Your task to perform on an android device: See recent photos Image 0: 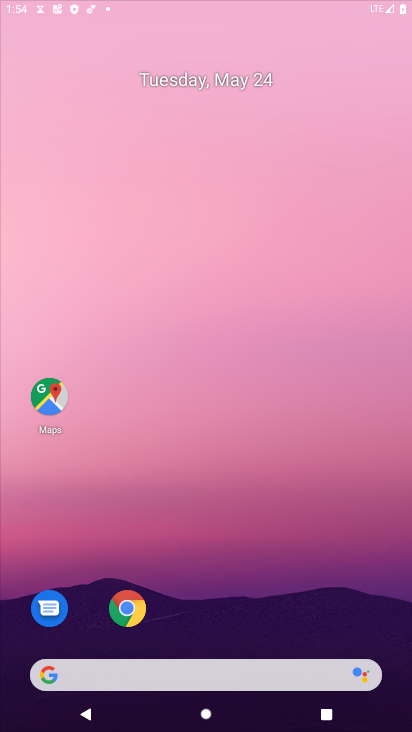
Step 0: drag from (256, 605) to (218, 187)
Your task to perform on an android device: See recent photos Image 1: 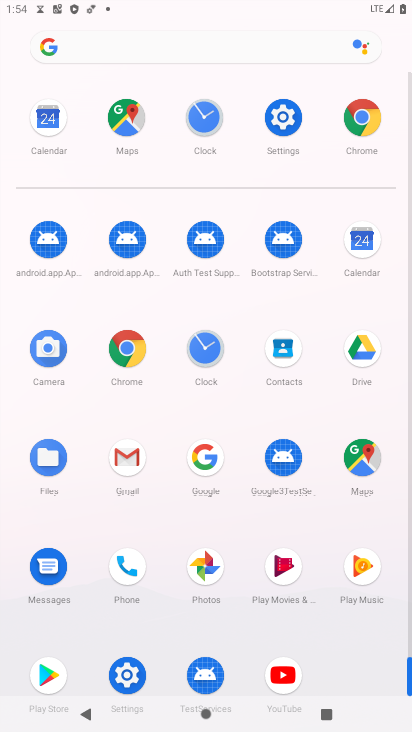
Step 1: click (208, 568)
Your task to perform on an android device: See recent photos Image 2: 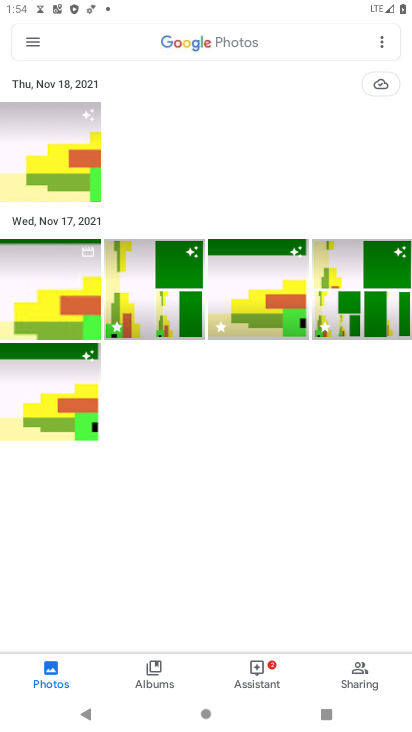
Step 2: task complete